Your task to perform on an android device: open wifi settings Image 0: 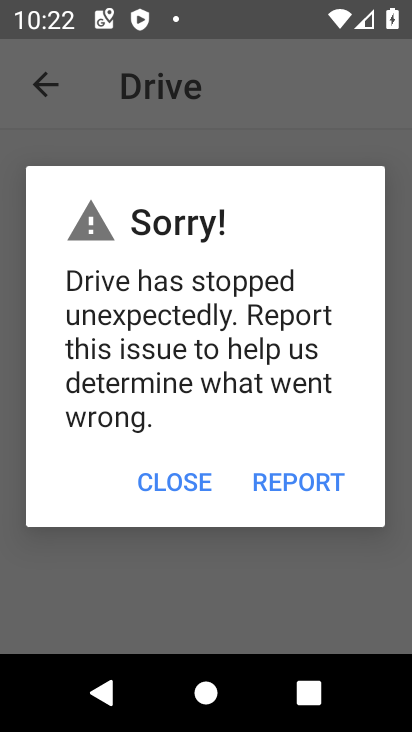
Step 0: drag from (179, 564) to (396, 273)
Your task to perform on an android device: open wifi settings Image 1: 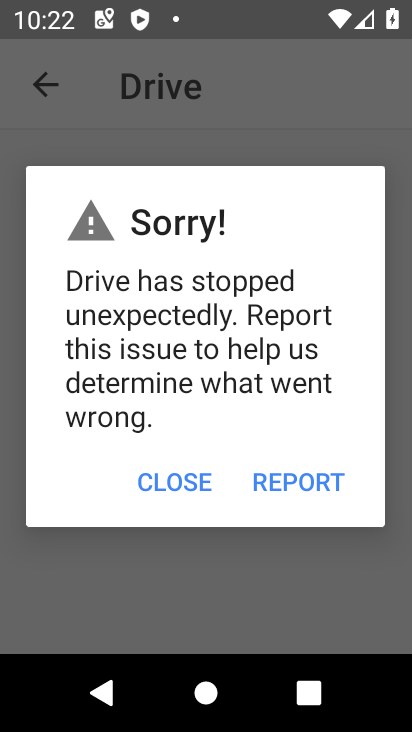
Step 1: press home button
Your task to perform on an android device: open wifi settings Image 2: 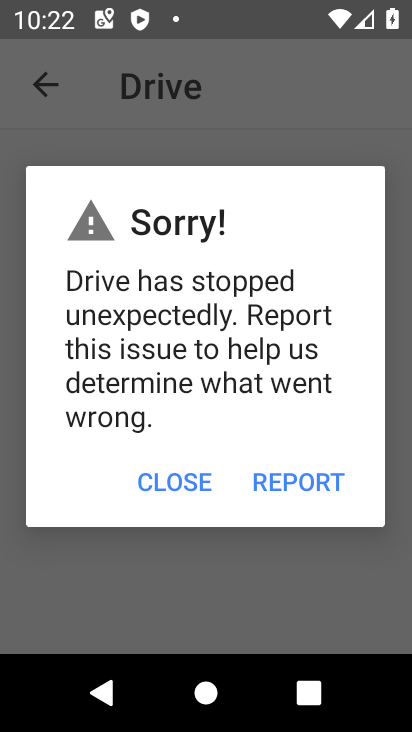
Step 2: click (396, 273)
Your task to perform on an android device: open wifi settings Image 3: 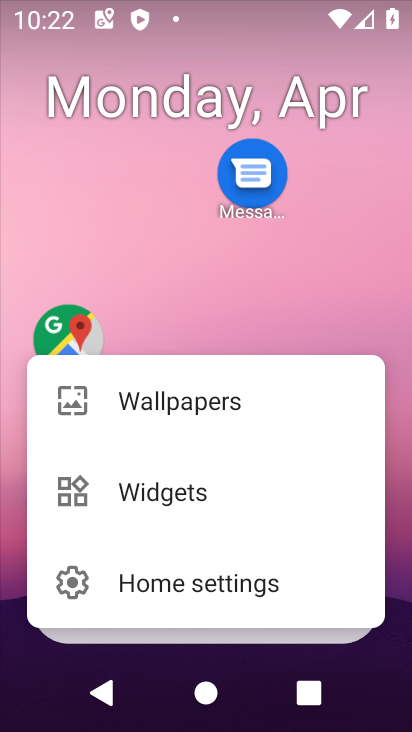
Step 3: click (255, 277)
Your task to perform on an android device: open wifi settings Image 4: 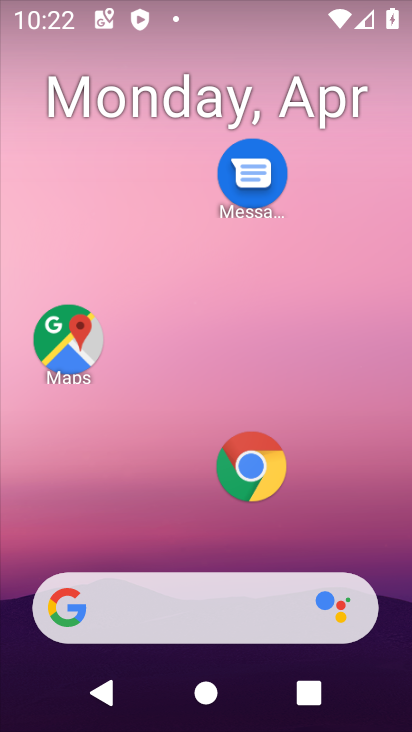
Step 4: drag from (166, 550) to (237, 29)
Your task to perform on an android device: open wifi settings Image 5: 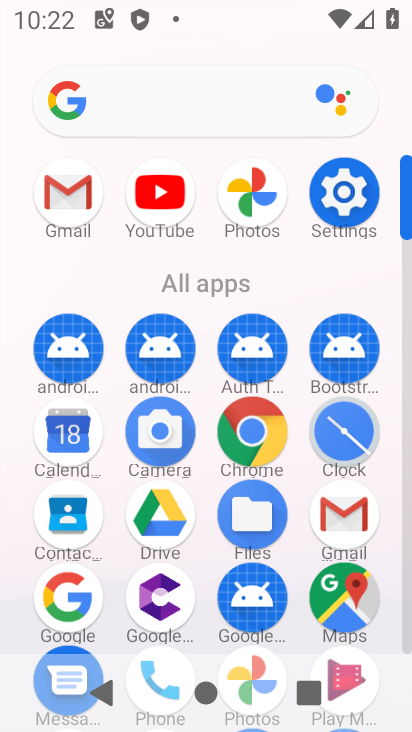
Step 5: click (353, 204)
Your task to perform on an android device: open wifi settings Image 6: 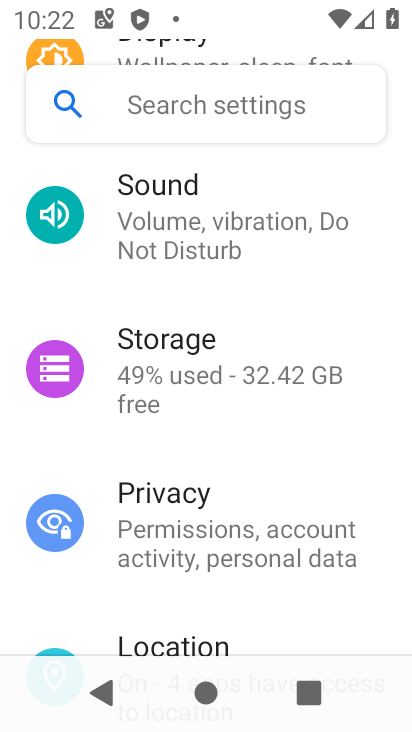
Step 6: drag from (266, 200) to (255, 711)
Your task to perform on an android device: open wifi settings Image 7: 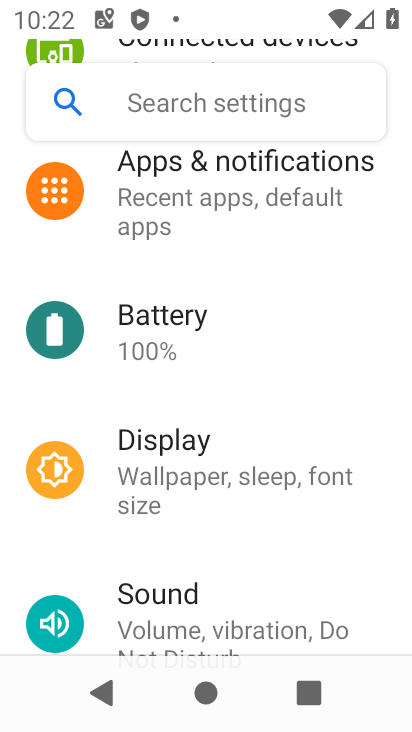
Step 7: drag from (253, 247) to (217, 674)
Your task to perform on an android device: open wifi settings Image 8: 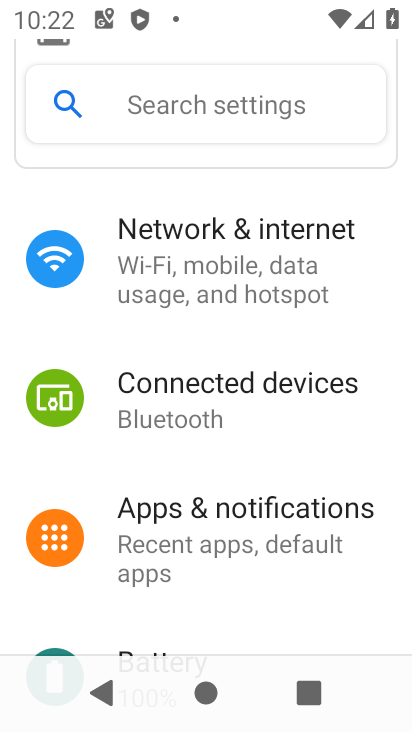
Step 8: click (229, 291)
Your task to perform on an android device: open wifi settings Image 9: 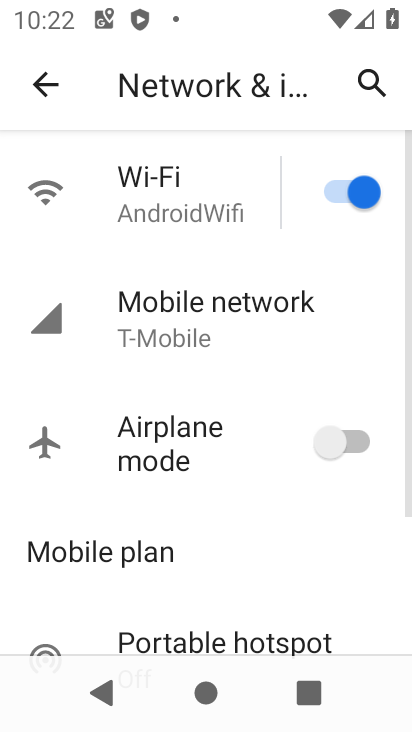
Step 9: click (210, 203)
Your task to perform on an android device: open wifi settings Image 10: 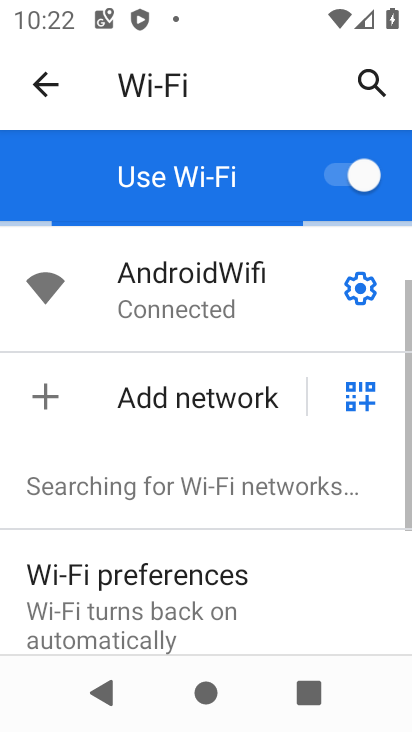
Step 10: task complete